Your task to perform on an android device: set an alarm Image 0: 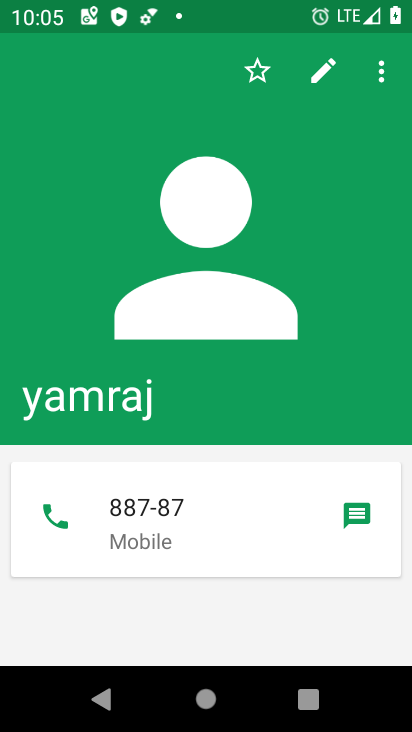
Step 0: press home button
Your task to perform on an android device: set an alarm Image 1: 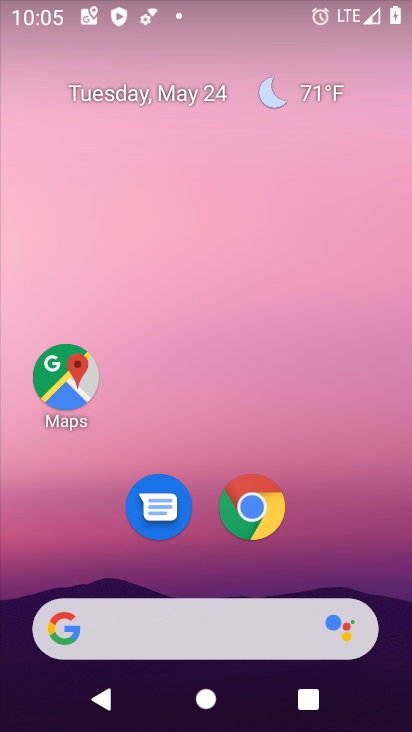
Step 1: drag from (229, 718) to (222, 264)
Your task to perform on an android device: set an alarm Image 2: 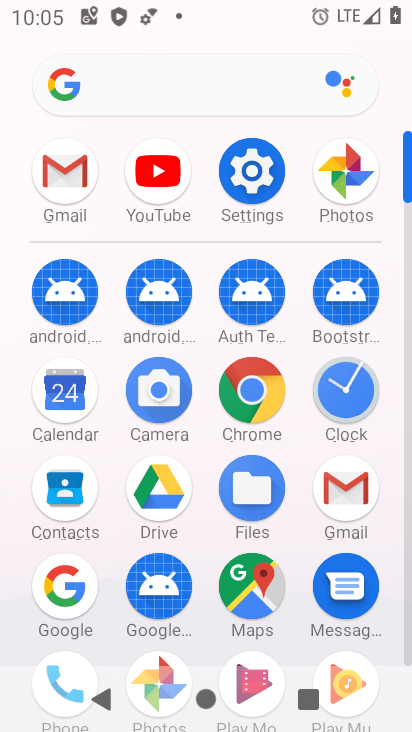
Step 2: click (341, 392)
Your task to perform on an android device: set an alarm Image 3: 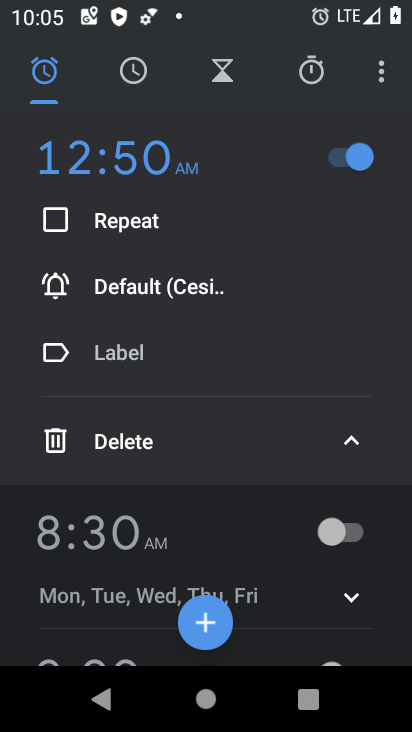
Step 3: click (207, 618)
Your task to perform on an android device: set an alarm Image 4: 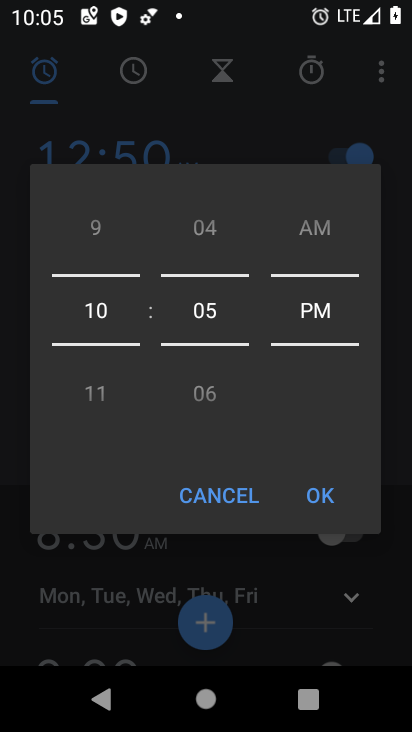
Step 4: drag from (101, 394) to (92, 341)
Your task to perform on an android device: set an alarm Image 5: 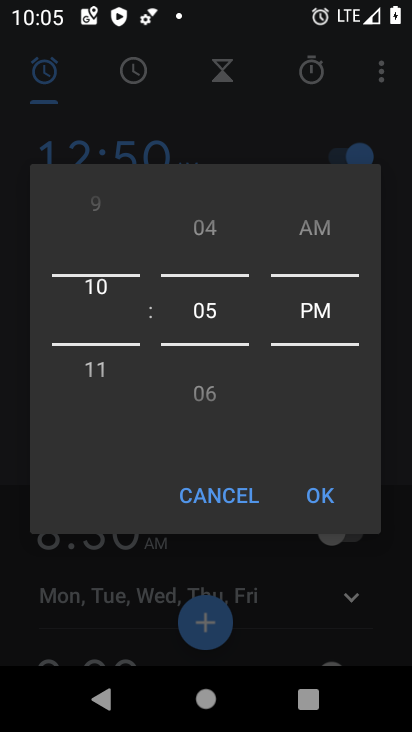
Step 5: click (70, 182)
Your task to perform on an android device: set an alarm Image 6: 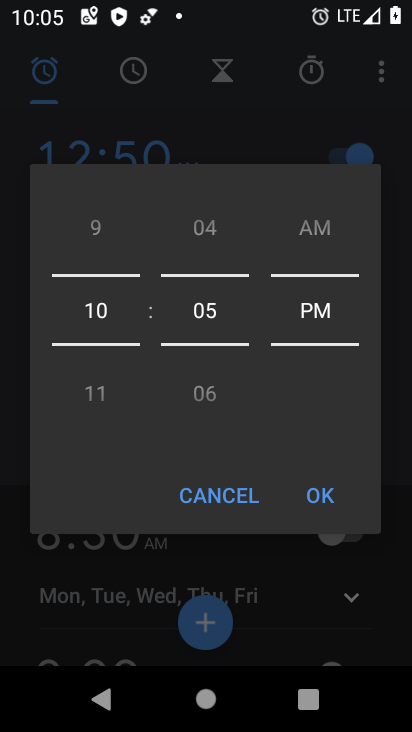
Step 6: drag from (199, 222) to (215, 451)
Your task to perform on an android device: set an alarm Image 7: 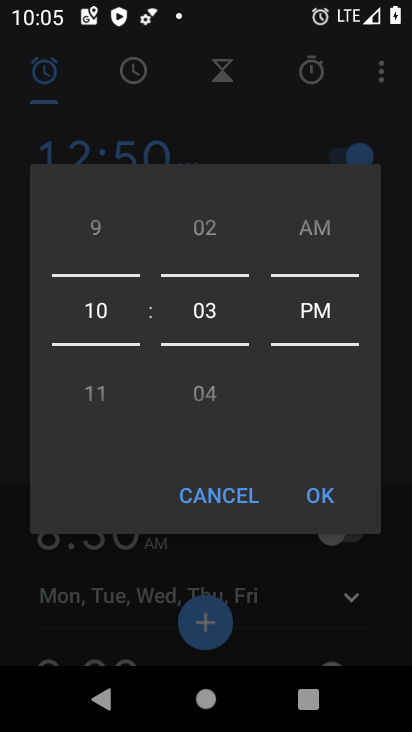
Step 7: drag from (327, 221) to (326, 403)
Your task to perform on an android device: set an alarm Image 8: 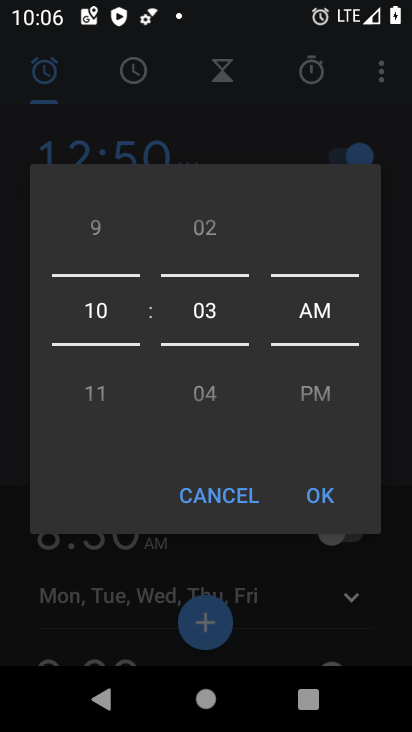
Step 8: click (329, 491)
Your task to perform on an android device: set an alarm Image 9: 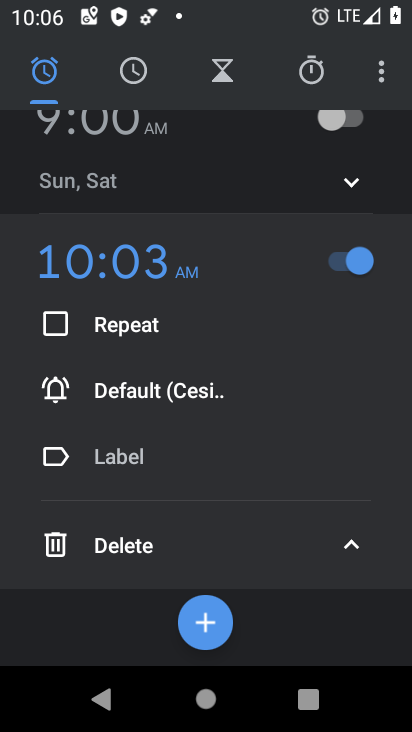
Step 9: task complete